Your task to perform on an android device: Show me popular games on the Play Store Image 0: 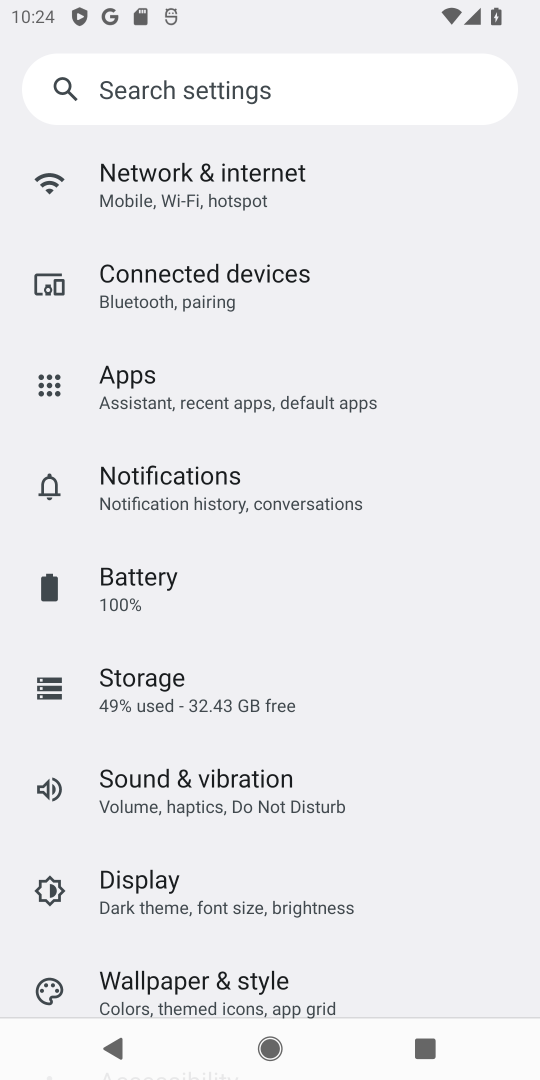
Step 0: press home button
Your task to perform on an android device: Show me popular games on the Play Store Image 1: 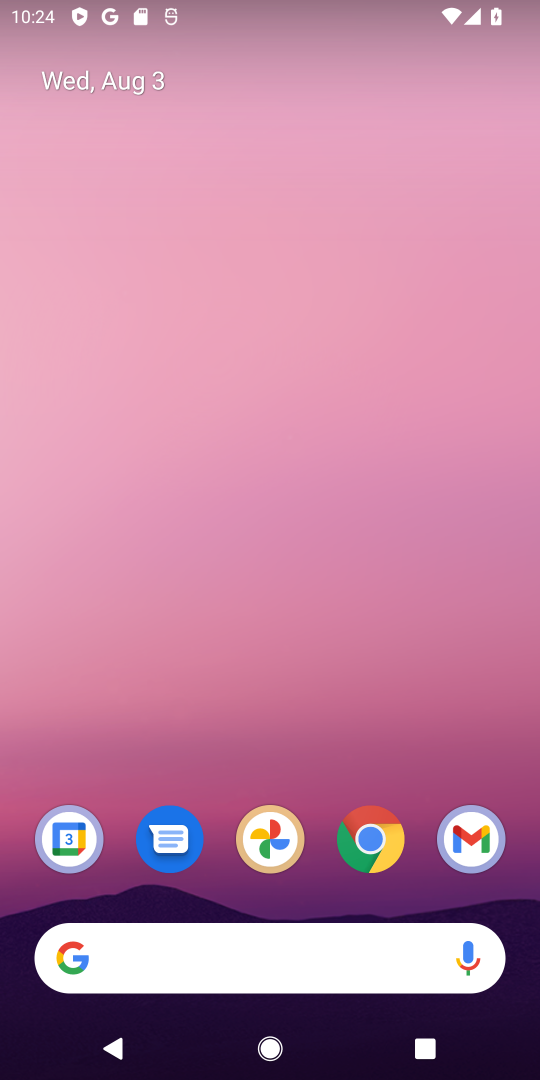
Step 1: drag from (291, 854) to (286, 16)
Your task to perform on an android device: Show me popular games on the Play Store Image 2: 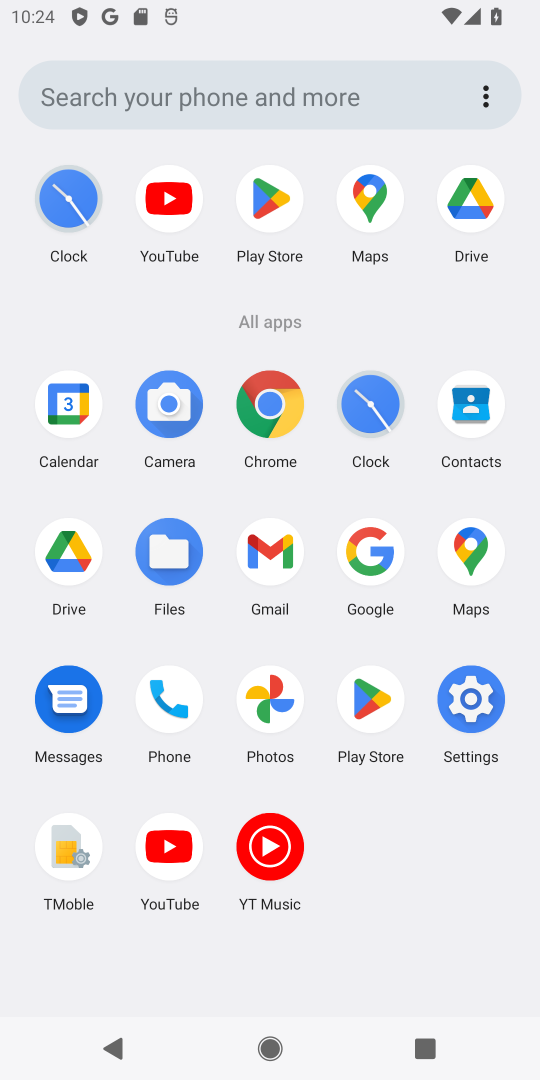
Step 2: click (381, 723)
Your task to perform on an android device: Show me popular games on the Play Store Image 3: 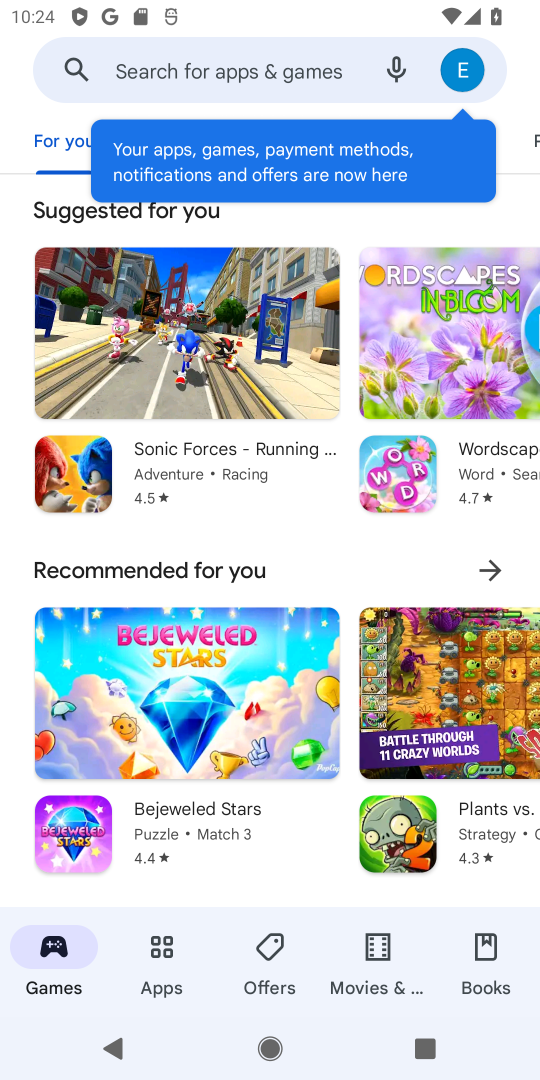
Step 3: drag from (67, 145) to (0, 169)
Your task to perform on an android device: Show me popular games on the Play Store Image 4: 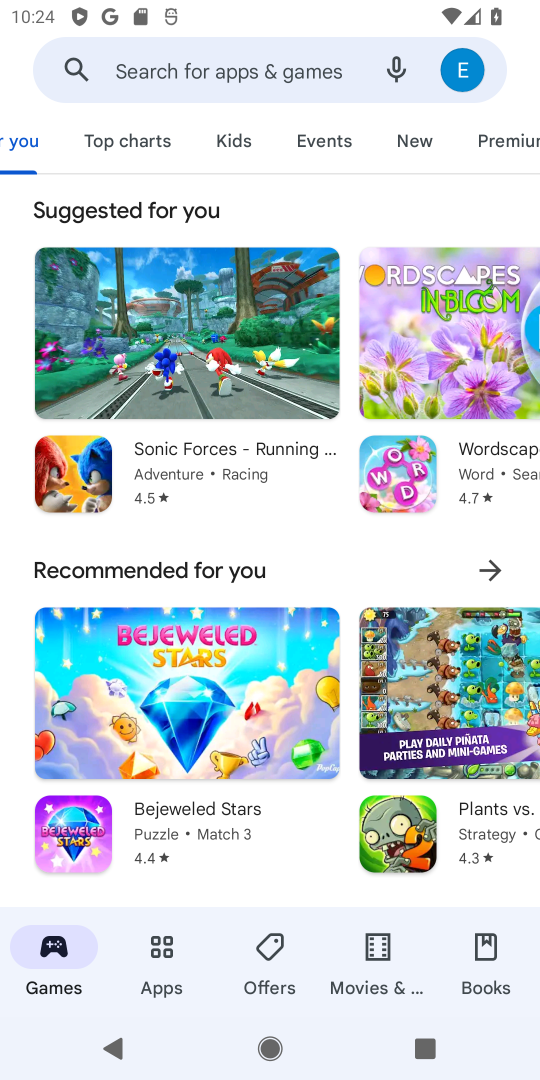
Step 4: click (142, 139)
Your task to perform on an android device: Show me popular games on the Play Store Image 5: 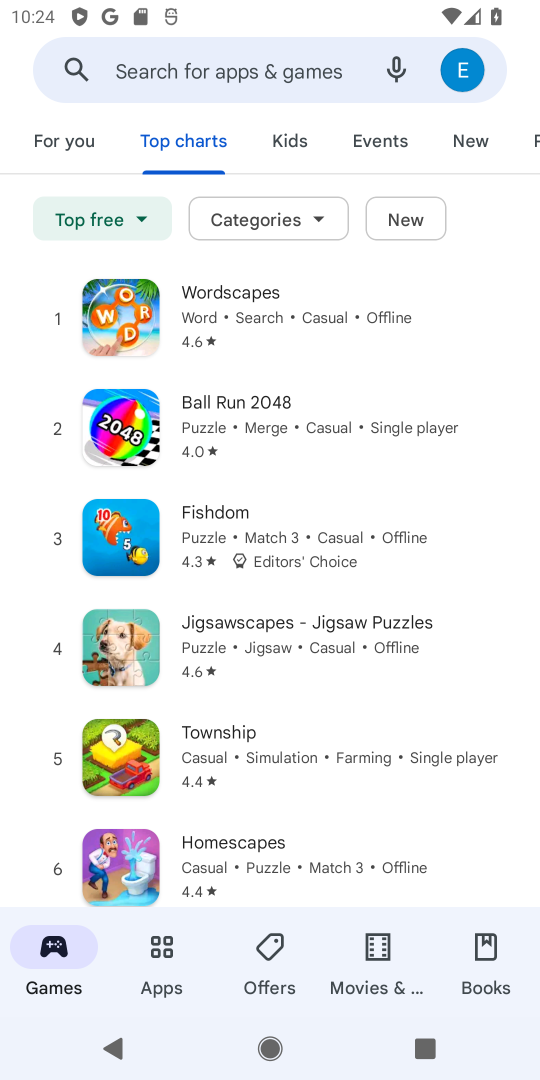
Step 5: task complete